Your task to perform on an android device: open app "Chime – Mobile Banking" (install if not already installed) Image 0: 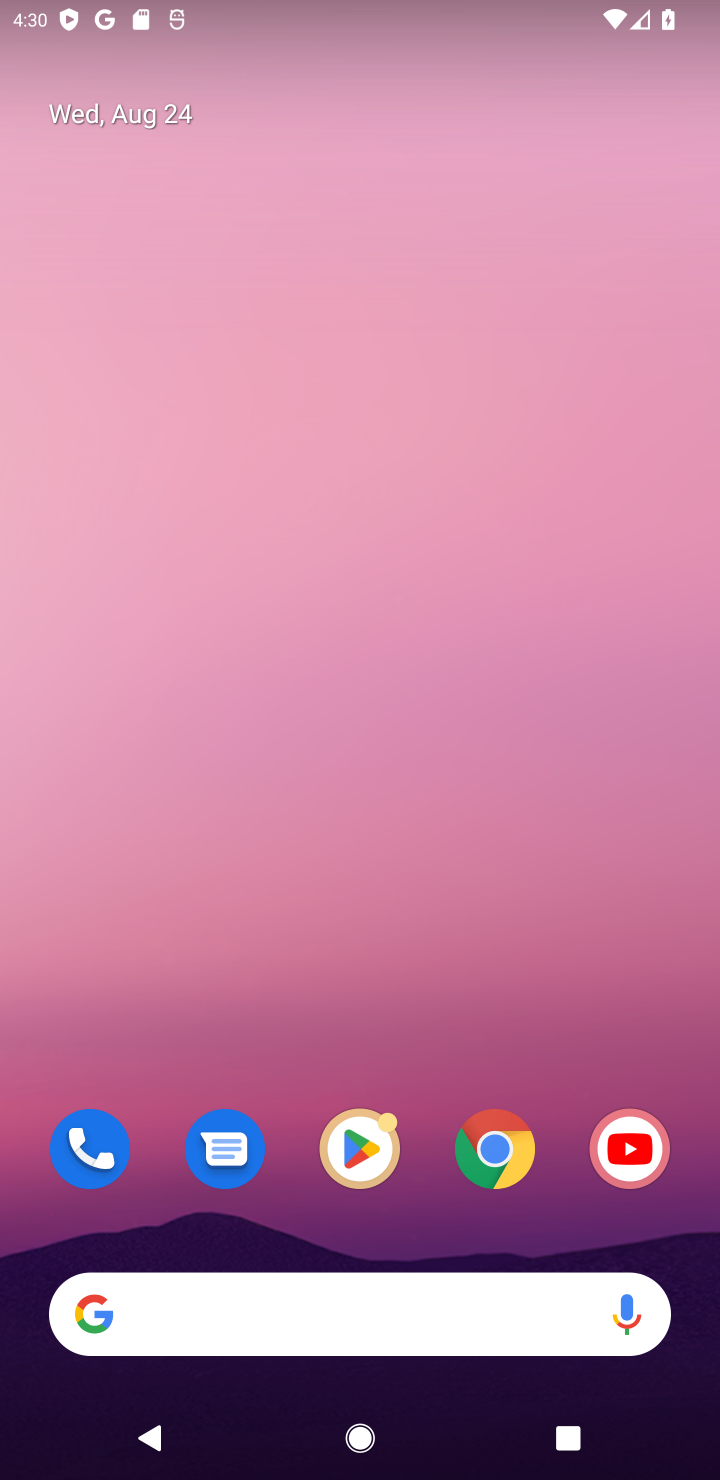
Step 0: click (354, 1168)
Your task to perform on an android device: open app "Chime – Mobile Banking" (install if not already installed) Image 1: 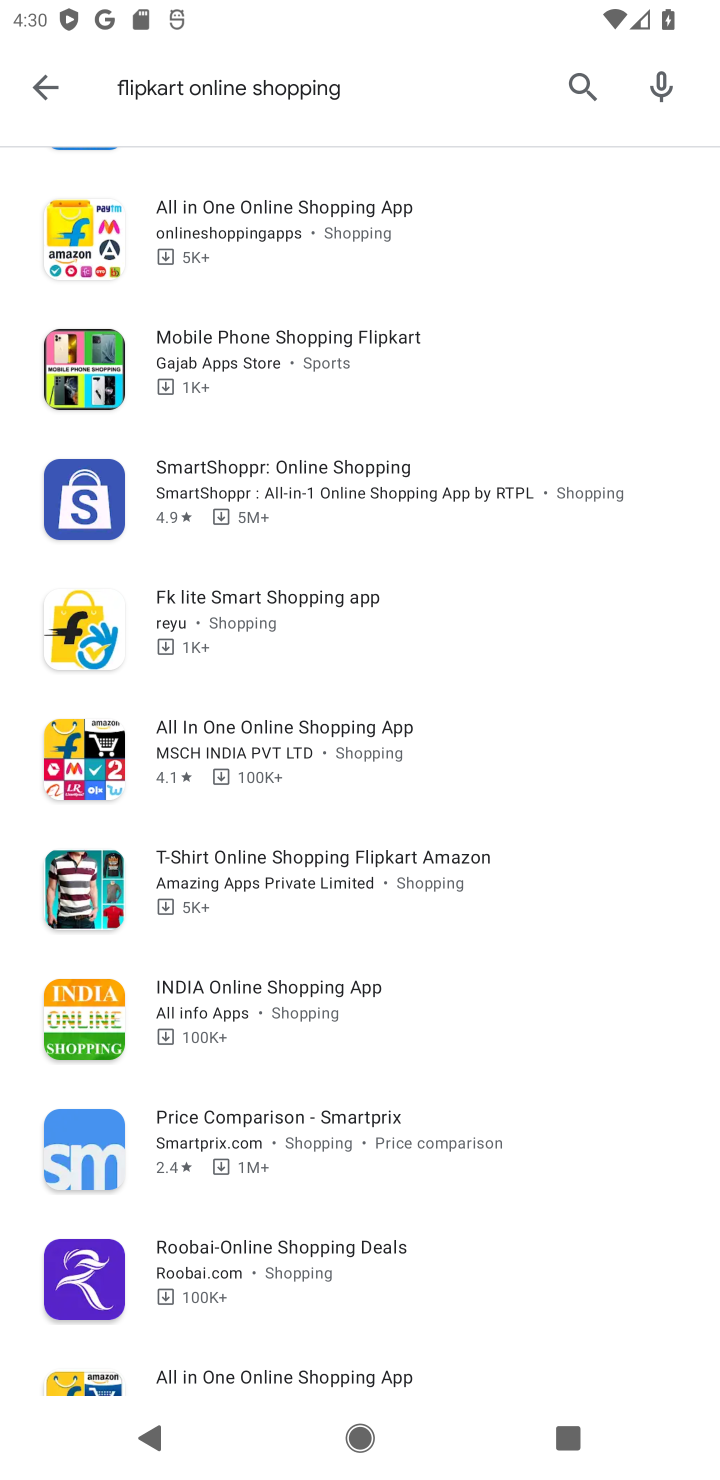
Step 1: click (577, 84)
Your task to perform on an android device: open app "Chime – Mobile Banking" (install if not already installed) Image 2: 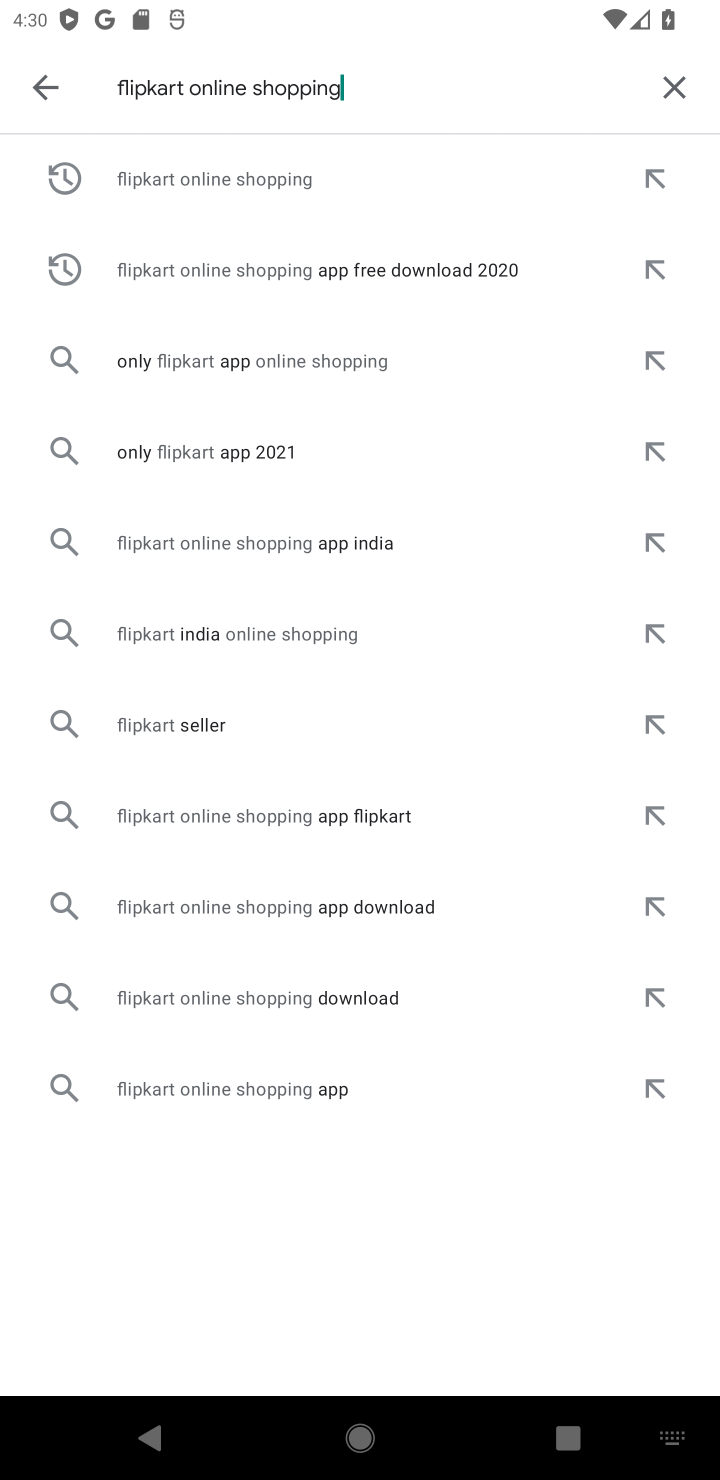
Step 2: click (675, 76)
Your task to perform on an android device: open app "Chime – Mobile Banking" (install if not already installed) Image 3: 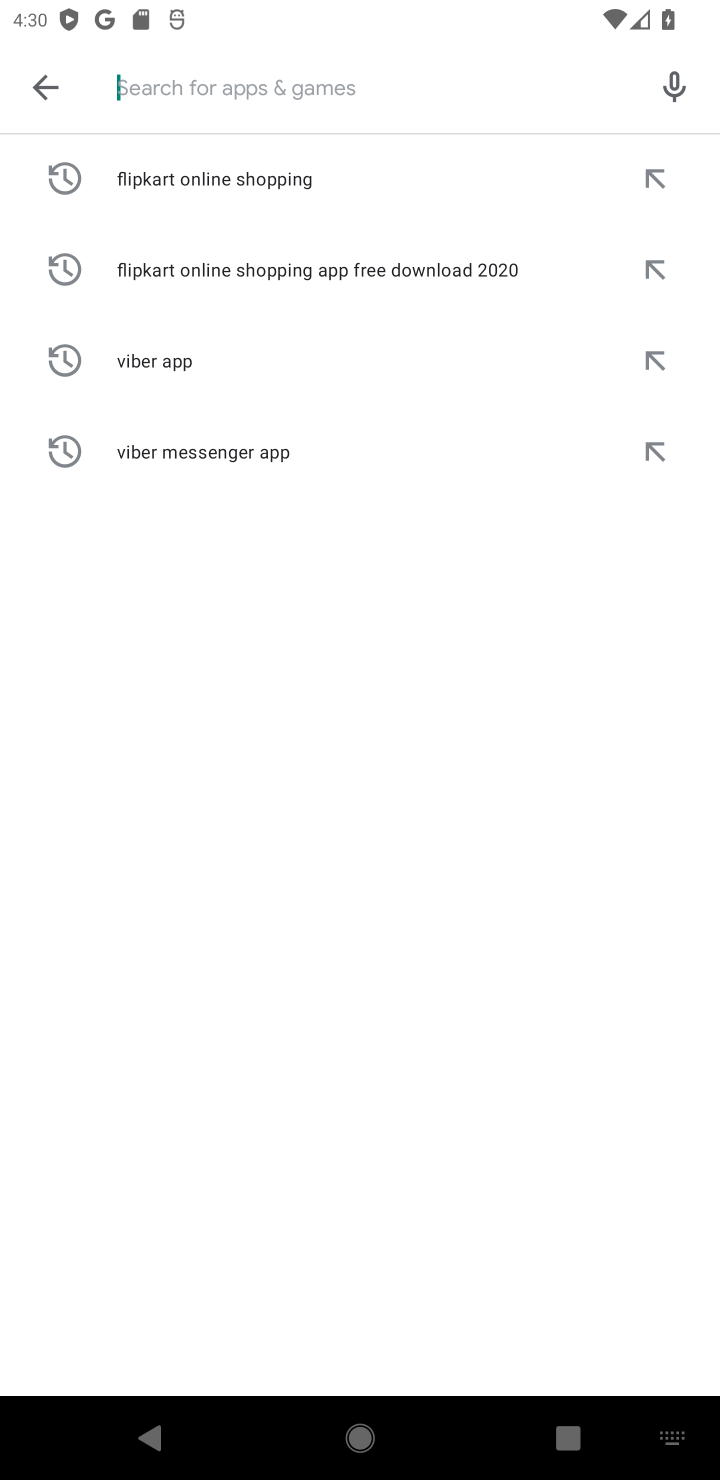
Step 3: type "Chime – Mobile Banking"
Your task to perform on an android device: open app "Chime – Mobile Banking" (install if not already installed) Image 4: 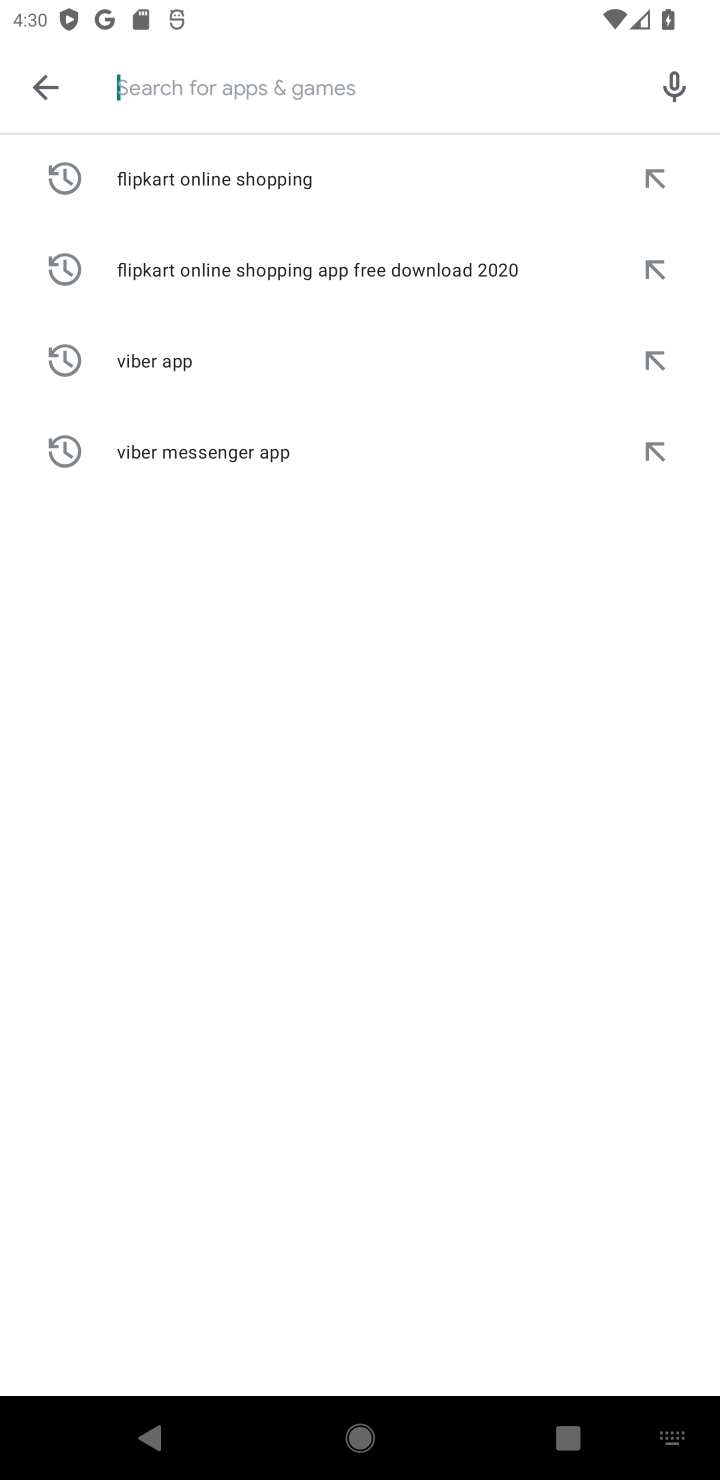
Step 4: type ""
Your task to perform on an android device: open app "Chime – Mobile Banking" (install if not already installed) Image 5: 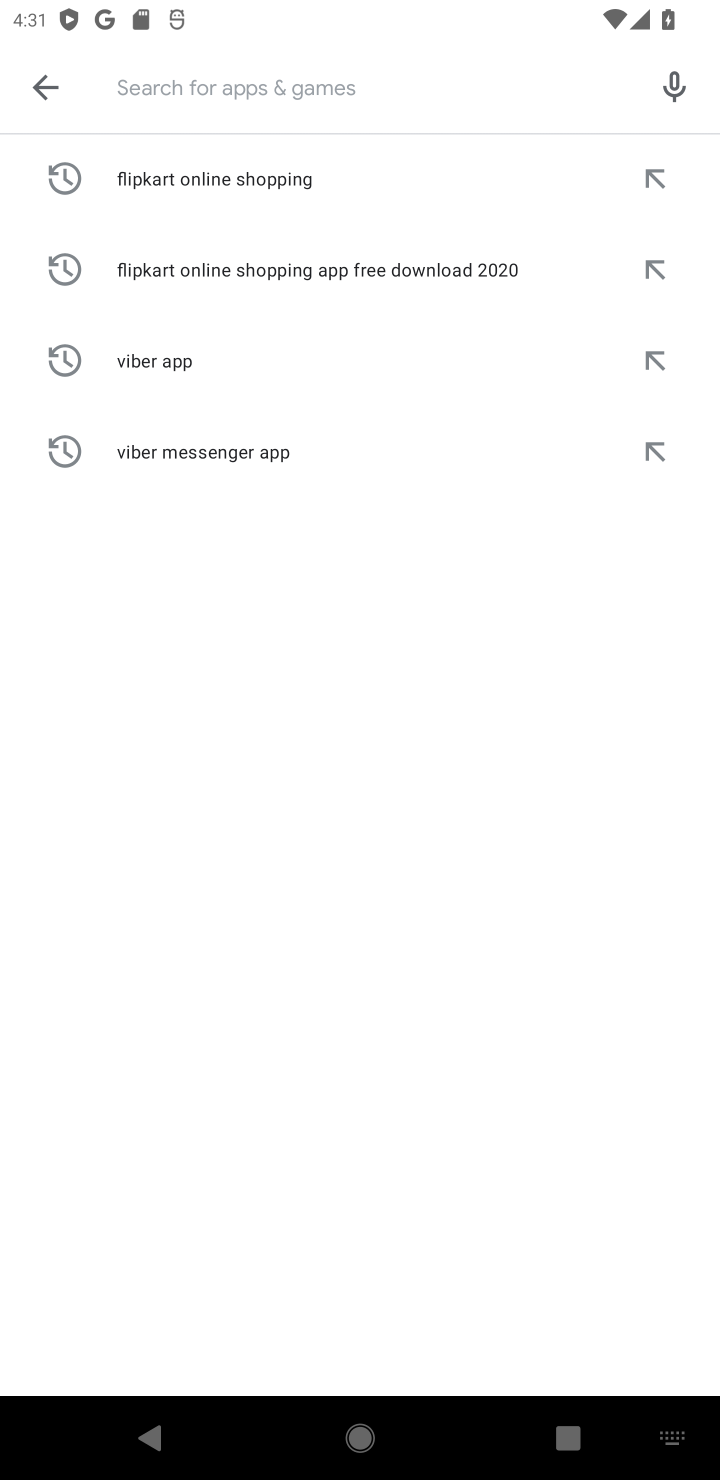
Step 5: type "Chime – Mobile Banking"
Your task to perform on an android device: open app "Chime – Mobile Banking" (install if not already installed) Image 6: 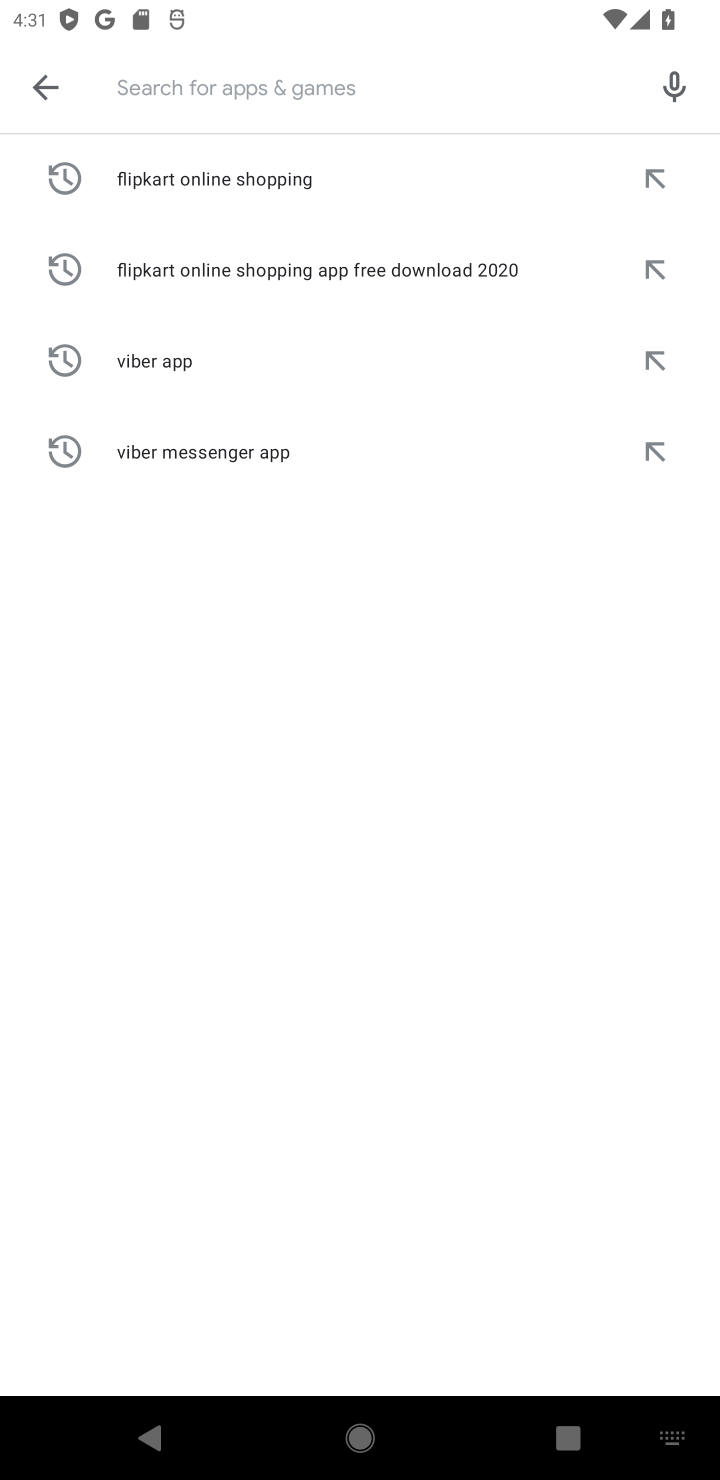
Step 6: type "Chime"
Your task to perform on an android device: open app "Chime – Mobile Banking" (install if not already installed) Image 7: 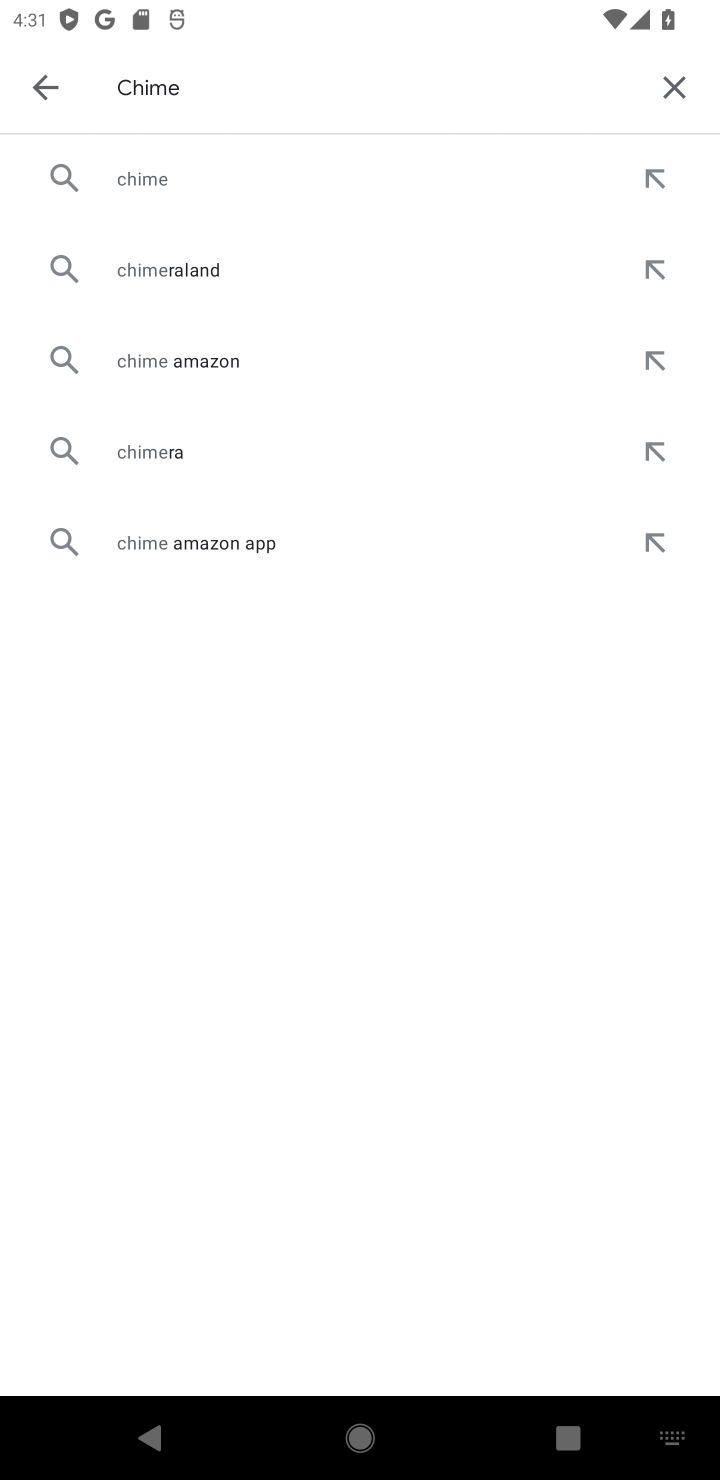
Step 7: type ""
Your task to perform on an android device: open app "Chime – Mobile Banking" (install if not already installed) Image 8: 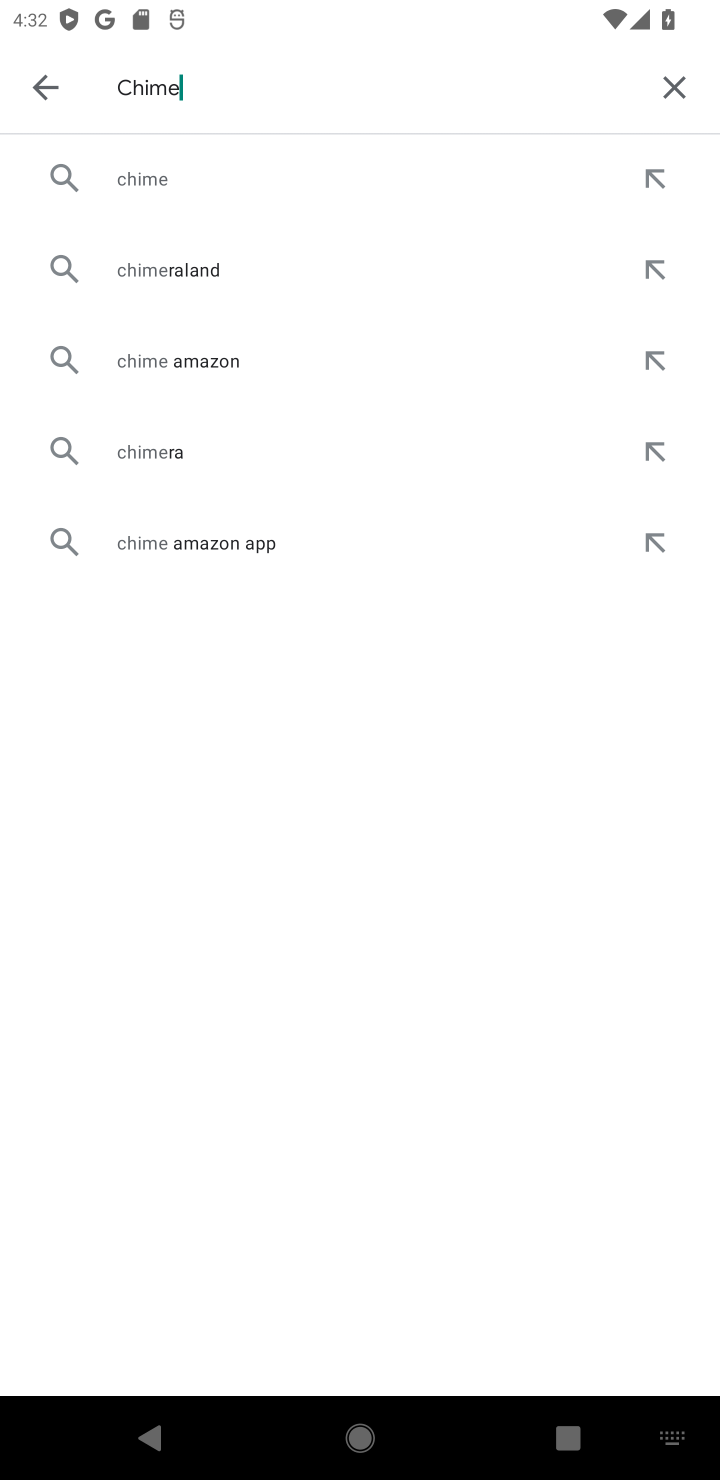
Step 8: type "- Mobile Banking"
Your task to perform on an android device: open app "Chime – Mobile Banking" (install if not already installed) Image 9: 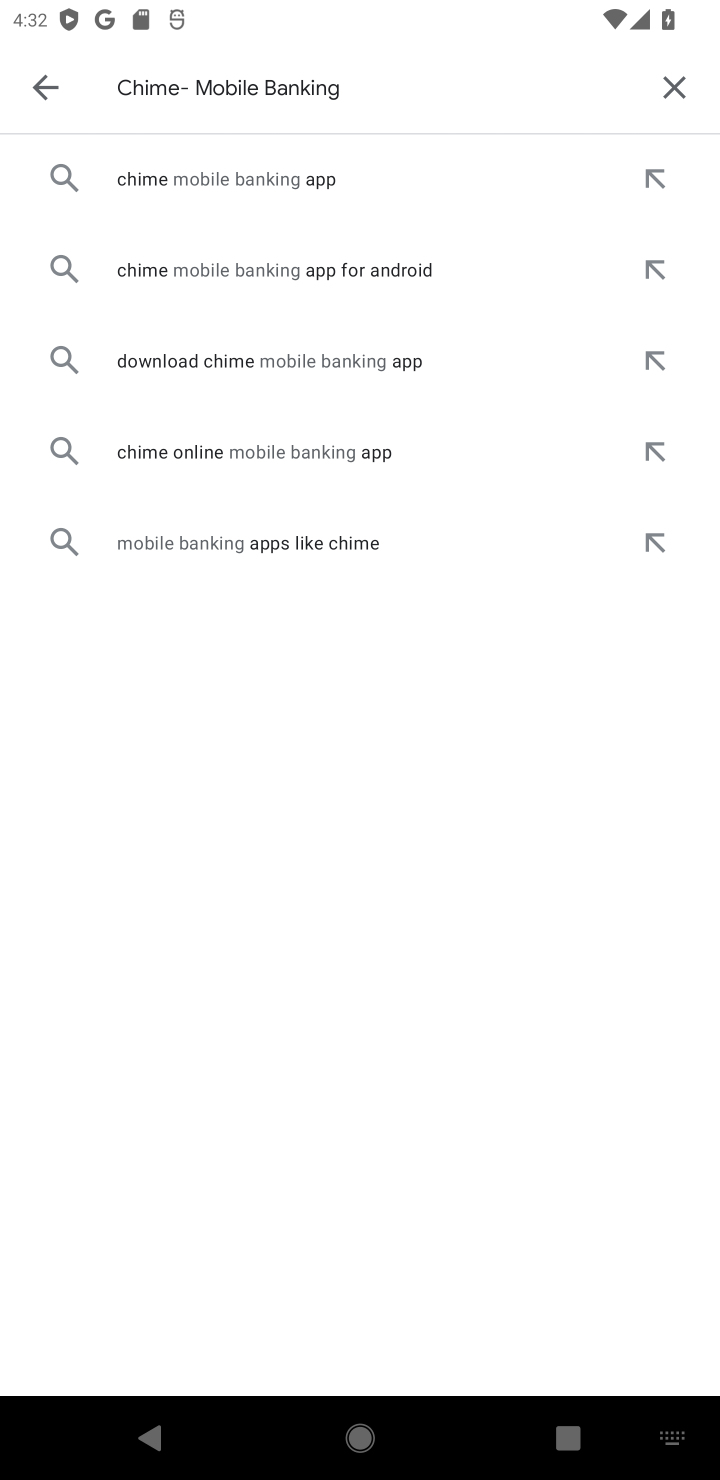
Step 9: click (176, 178)
Your task to perform on an android device: open app "Chime – Mobile Banking" (install if not already installed) Image 10: 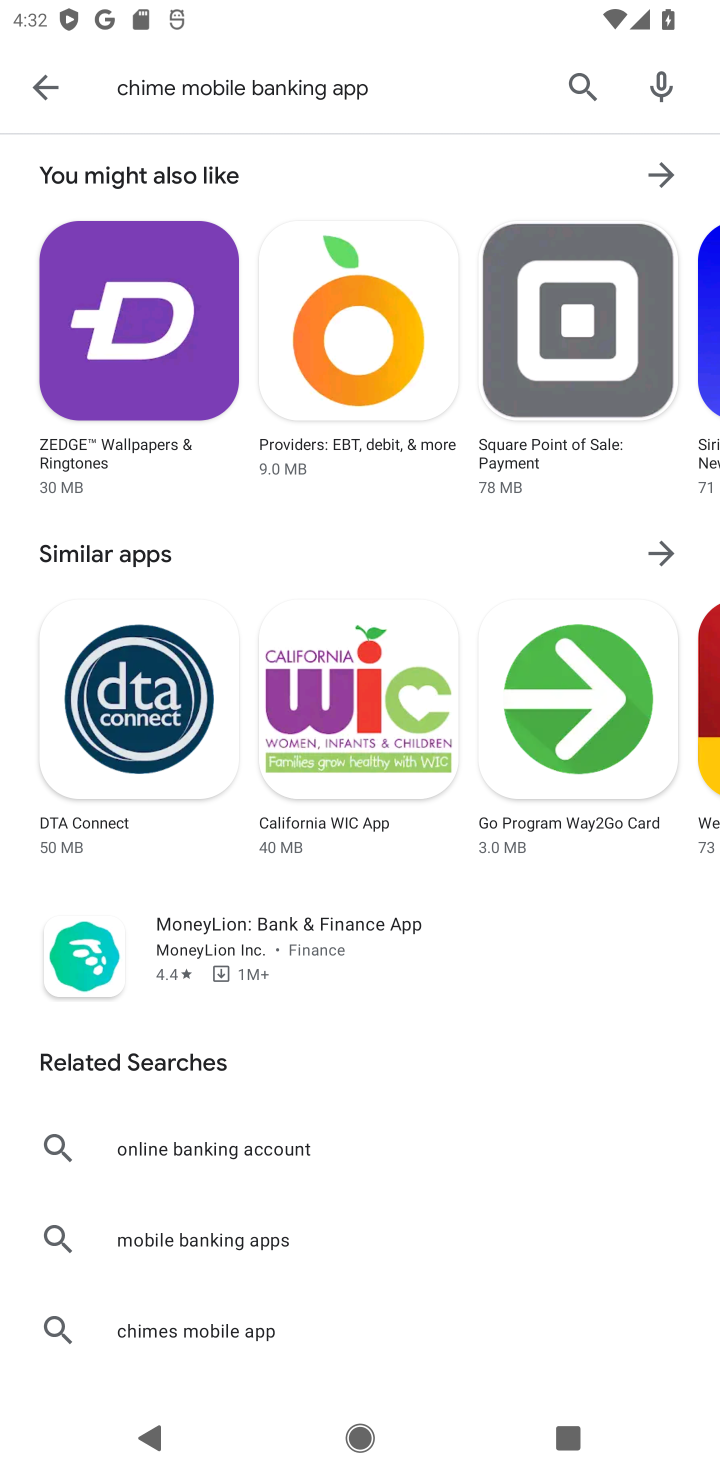
Step 10: click (575, 85)
Your task to perform on an android device: open app "Chime – Mobile Banking" (install if not already installed) Image 11: 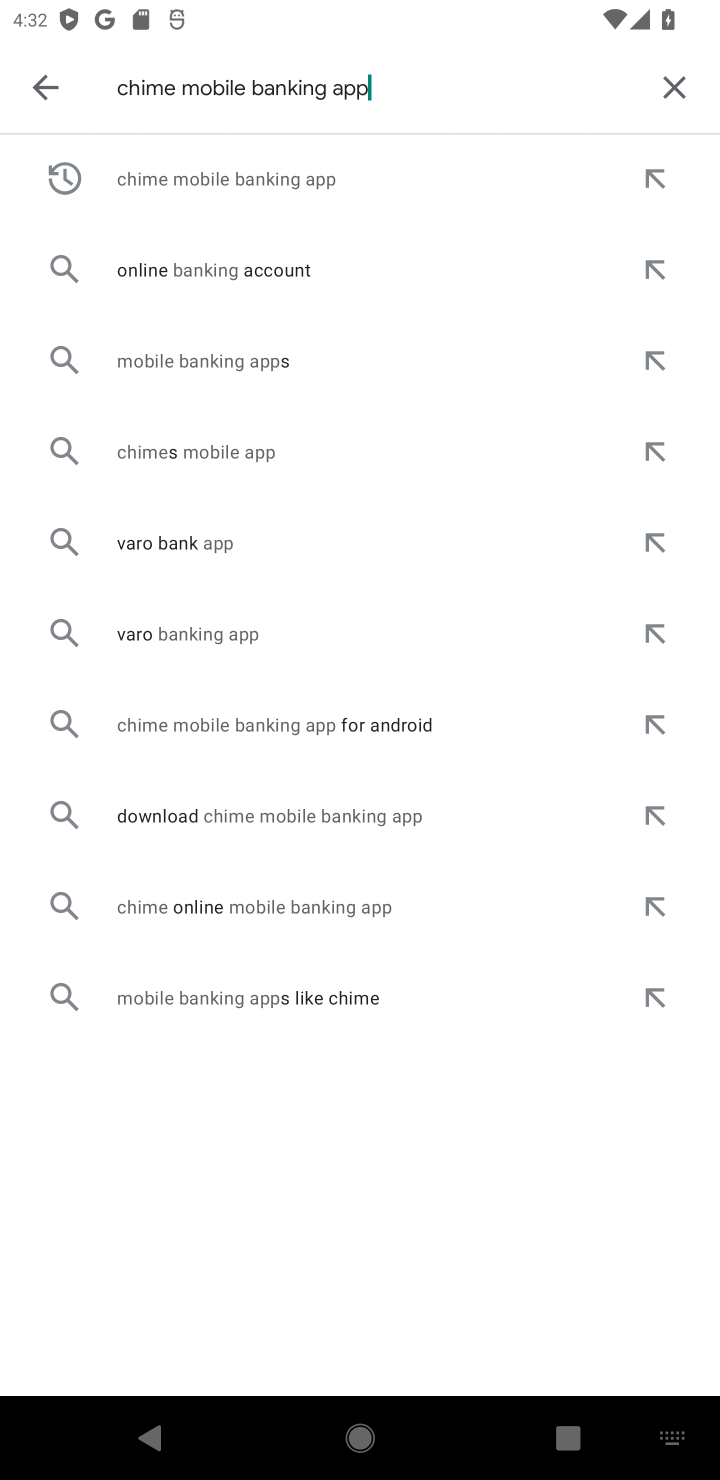
Step 11: click (670, 83)
Your task to perform on an android device: open app "Chime – Mobile Banking" (install if not already installed) Image 12: 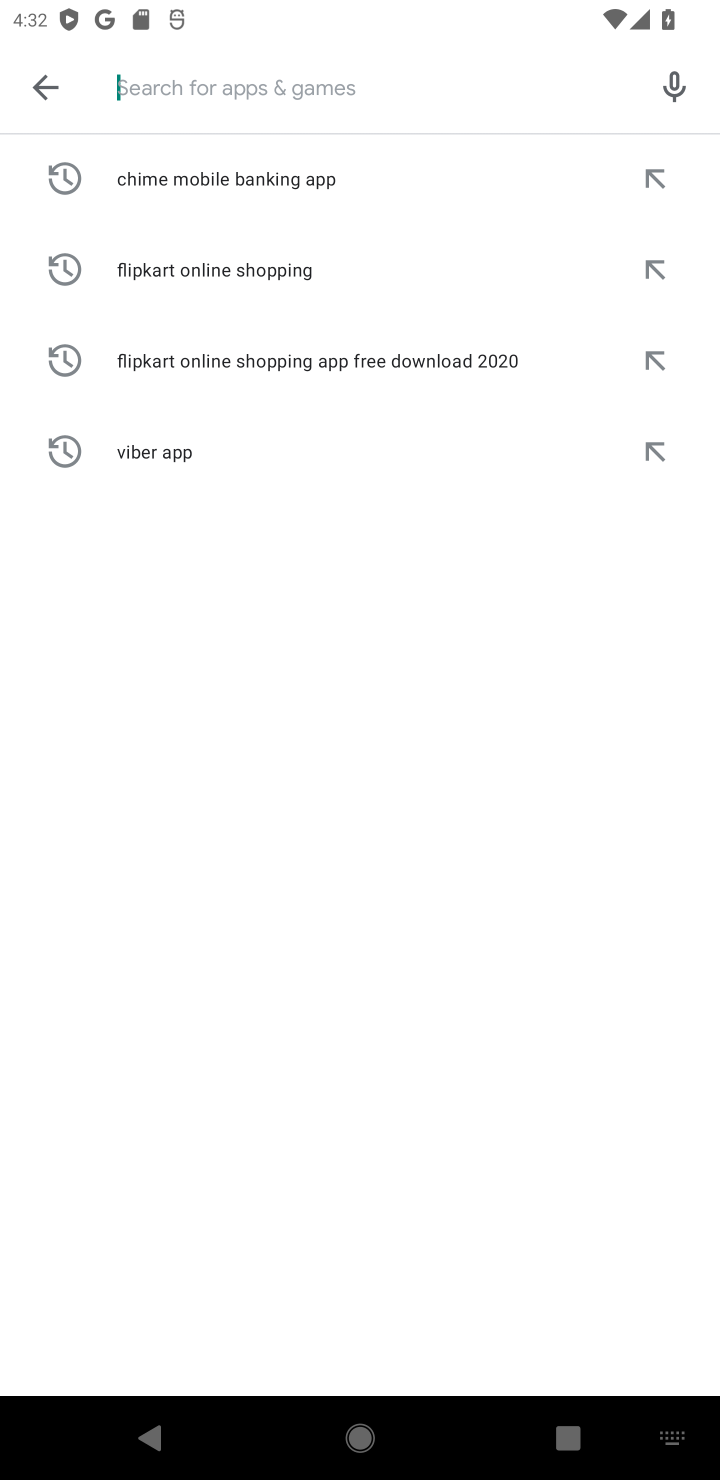
Step 12: type "Chime"
Your task to perform on an android device: open app "Chime – Mobile Banking" (install if not already installed) Image 13: 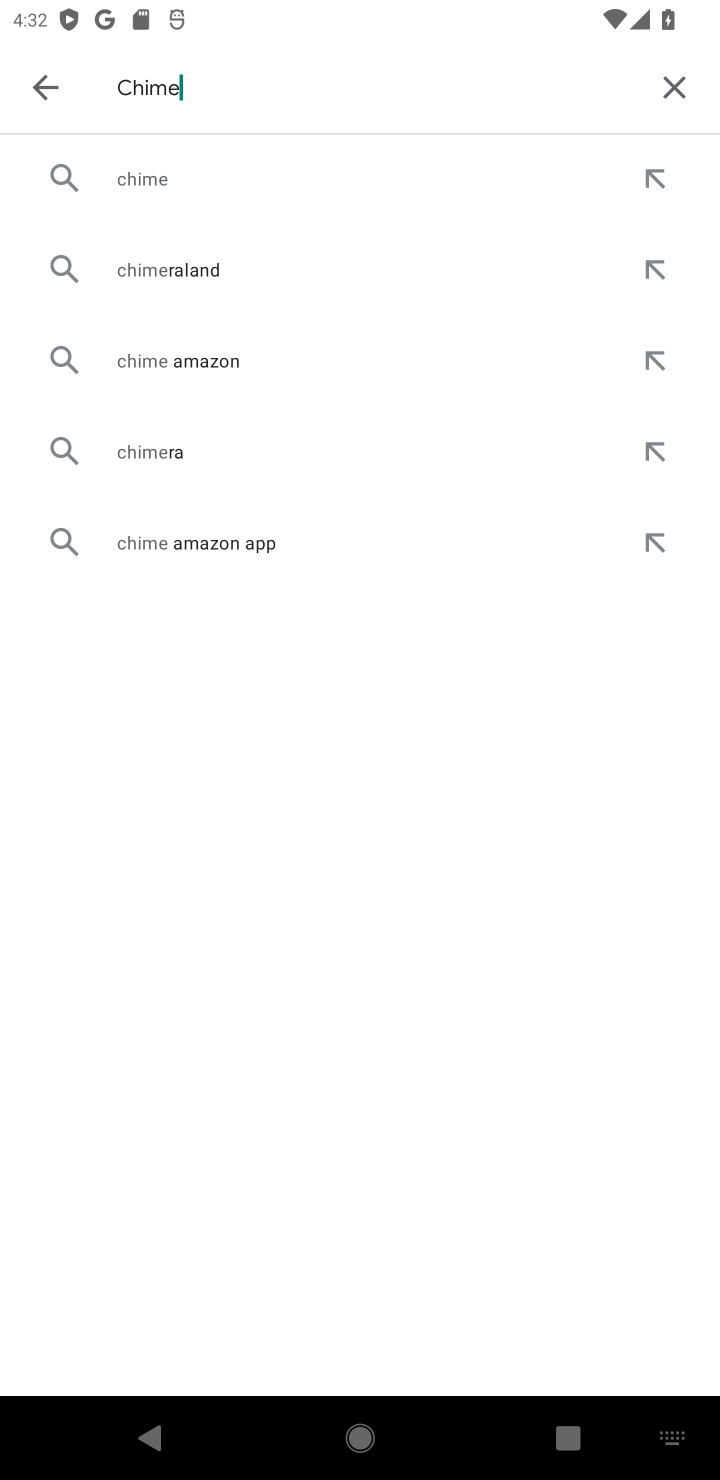
Step 13: click (136, 178)
Your task to perform on an android device: open app "Chime – Mobile Banking" (install if not already installed) Image 14: 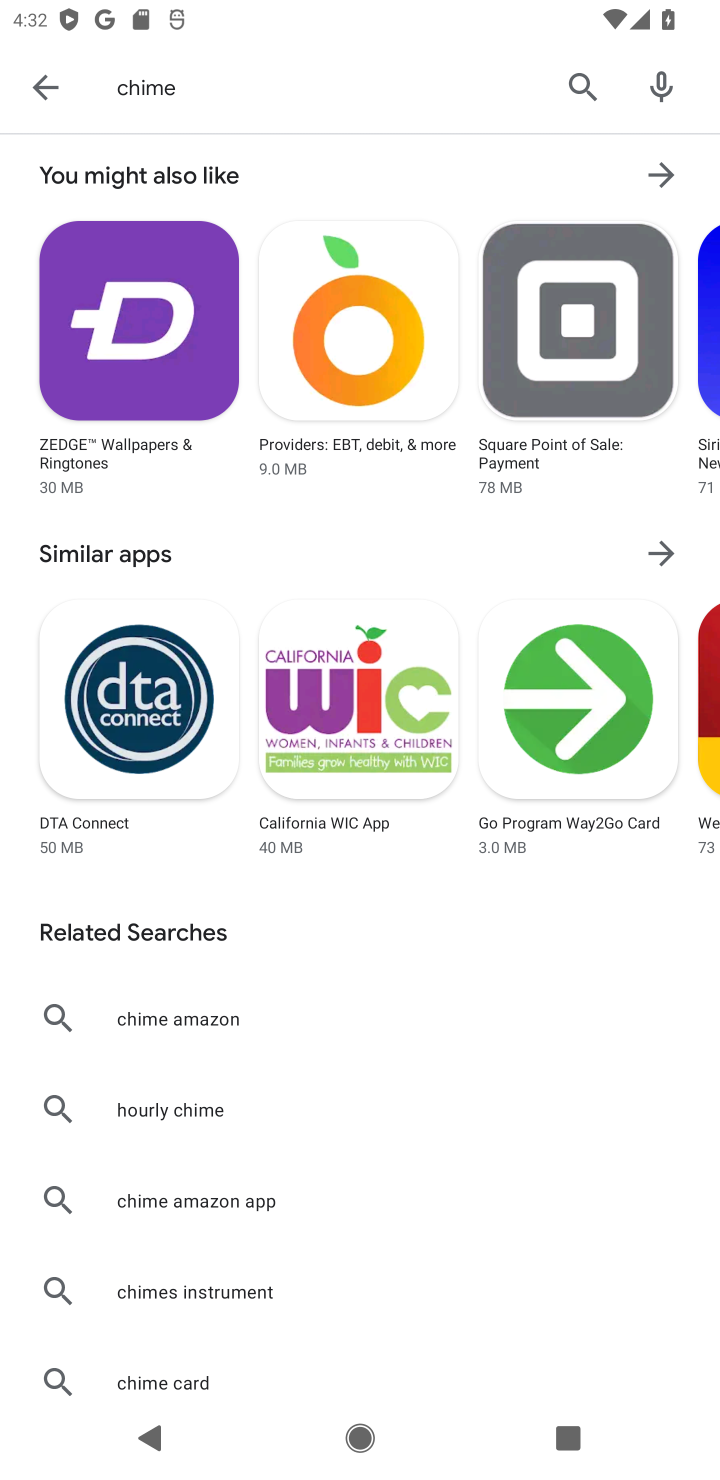
Step 14: task complete